Your task to perform on an android device: find snoozed emails in the gmail app Image 0: 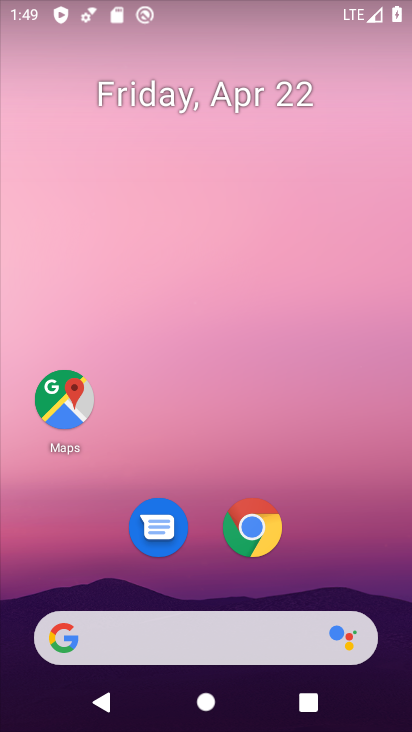
Step 0: drag from (322, 534) to (317, 187)
Your task to perform on an android device: find snoozed emails in the gmail app Image 1: 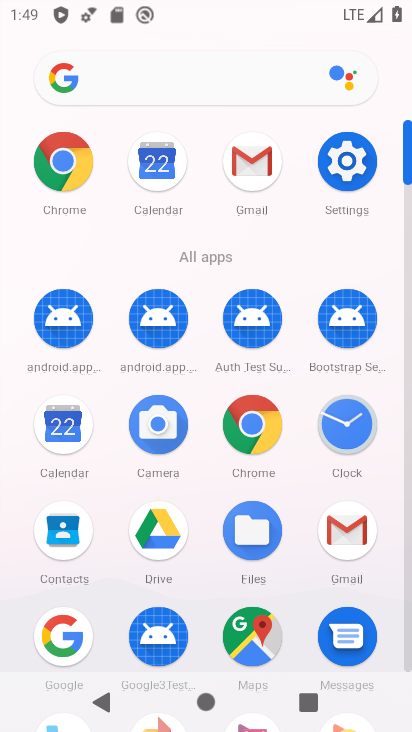
Step 1: click (240, 183)
Your task to perform on an android device: find snoozed emails in the gmail app Image 2: 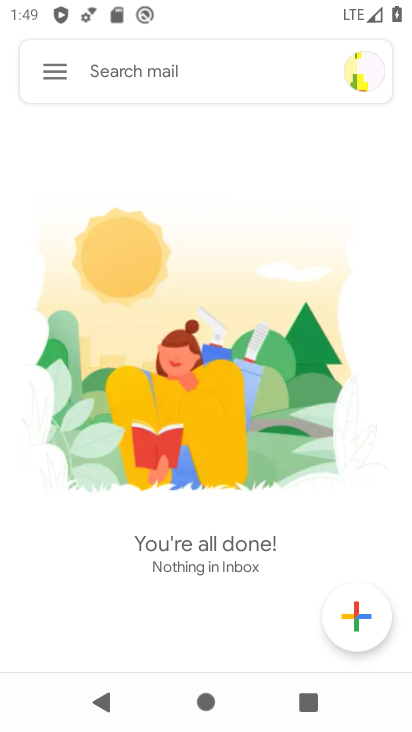
Step 2: click (50, 65)
Your task to perform on an android device: find snoozed emails in the gmail app Image 3: 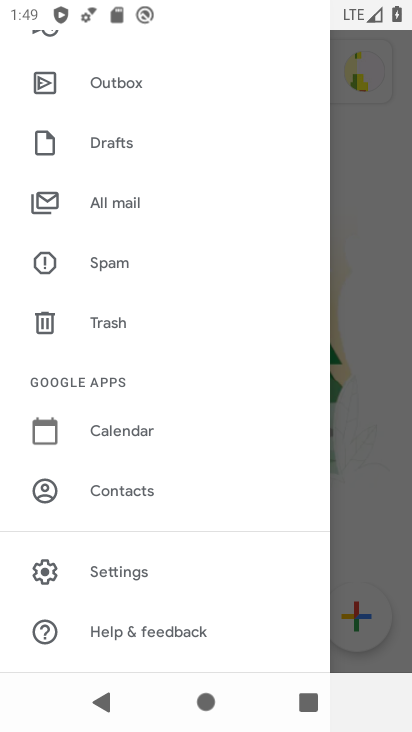
Step 3: drag from (218, 180) to (207, 508)
Your task to perform on an android device: find snoozed emails in the gmail app Image 4: 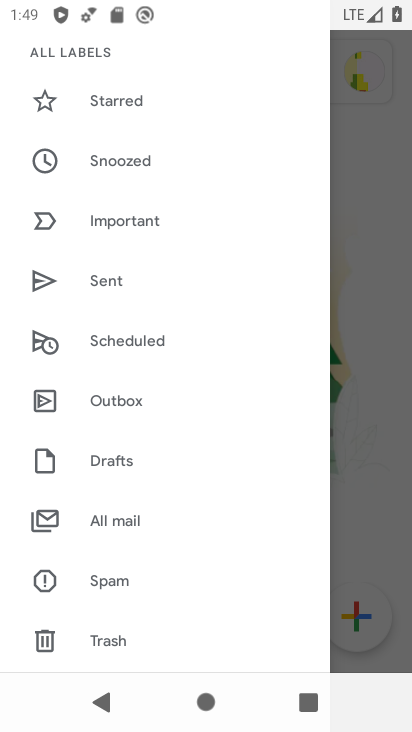
Step 4: click (99, 157)
Your task to perform on an android device: find snoozed emails in the gmail app Image 5: 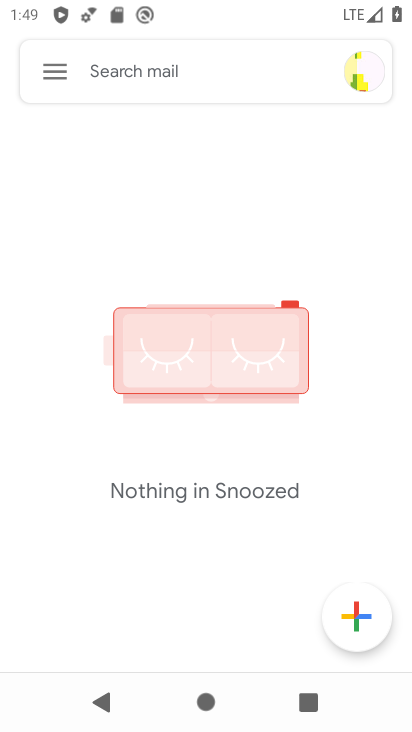
Step 5: task complete